Your task to perform on an android device: Open Chrome and go to settings Image 0: 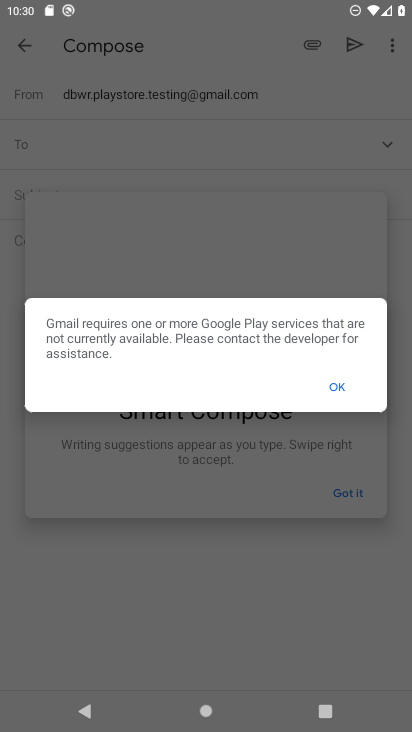
Step 0: press home button
Your task to perform on an android device: Open Chrome and go to settings Image 1: 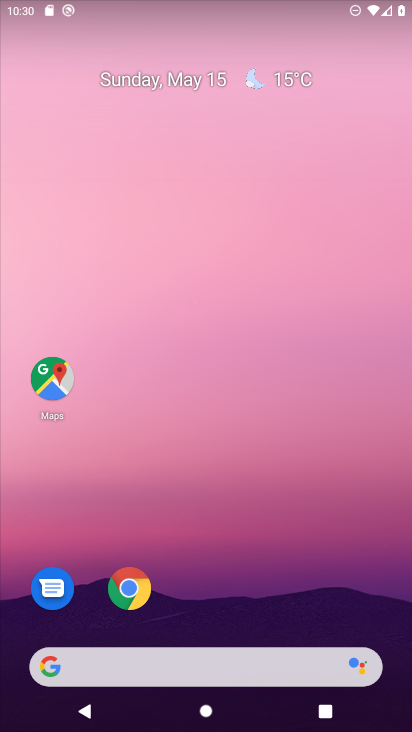
Step 1: click (132, 590)
Your task to perform on an android device: Open Chrome and go to settings Image 2: 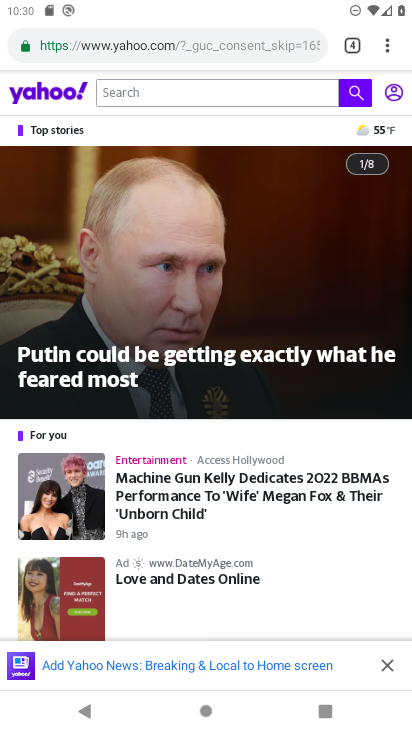
Step 2: click (393, 47)
Your task to perform on an android device: Open Chrome and go to settings Image 3: 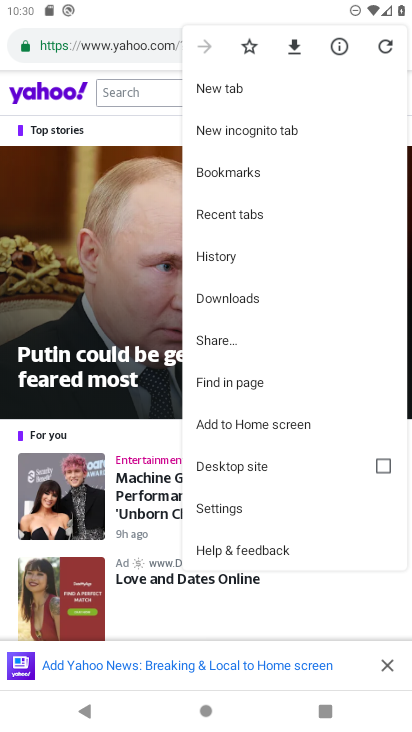
Step 3: click (236, 516)
Your task to perform on an android device: Open Chrome and go to settings Image 4: 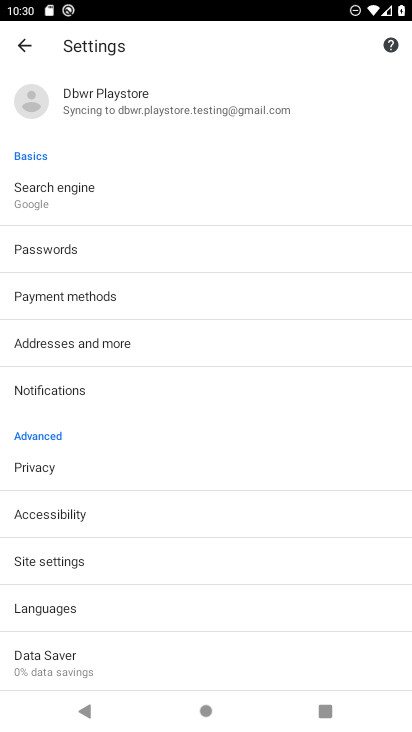
Step 4: task complete